Your task to perform on an android device: Open Amazon Image 0: 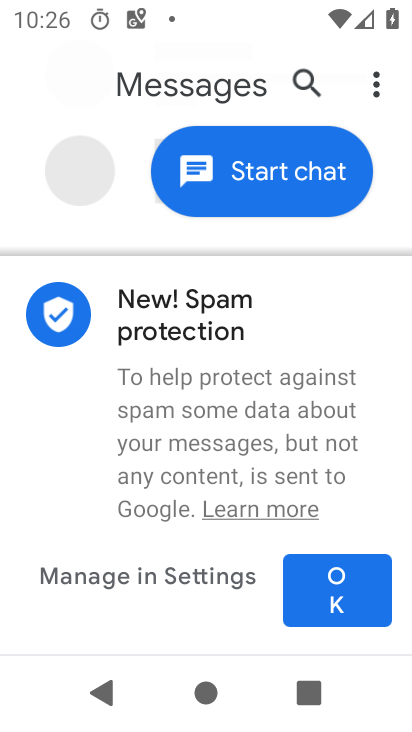
Step 0: press home button
Your task to perform on an android device: Open Amazon Image 1: 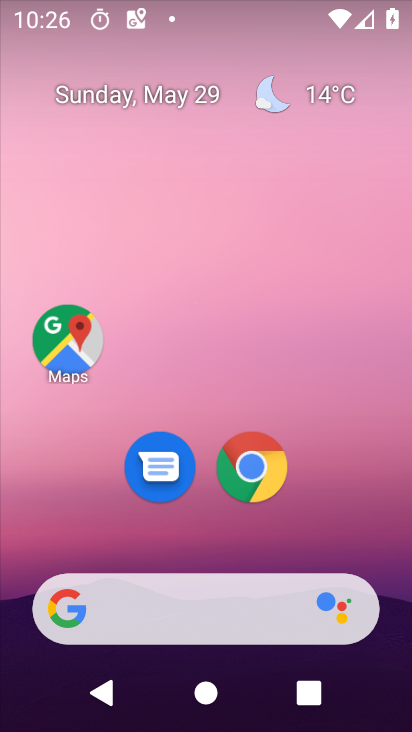
Step 1: click (275, 452)
Your task to perform on an android device: Open Amazon Image 2: 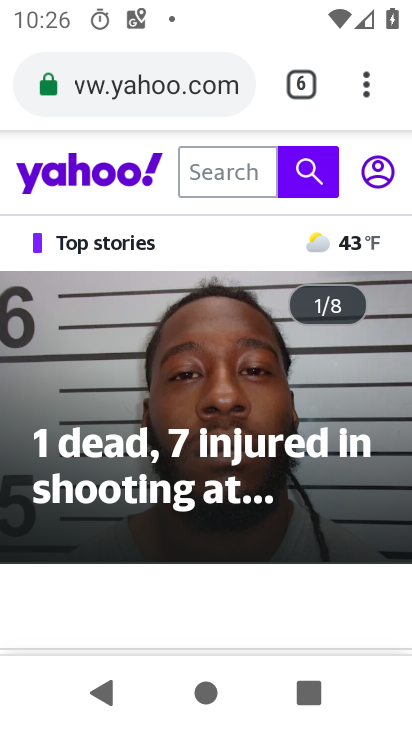
Step 2: click (302, 80)
Your task to perform on an android device: Open Amazon Image 3: 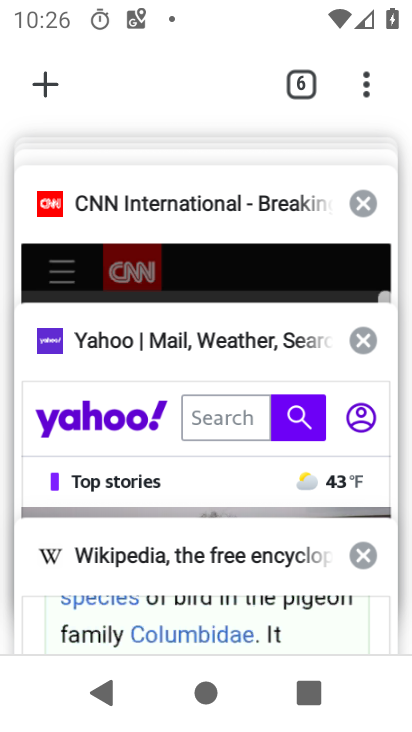
Step 3: drag from (135, 199) to (166, 412)
Your task to perform on an android device: Open Amazon Image 4: 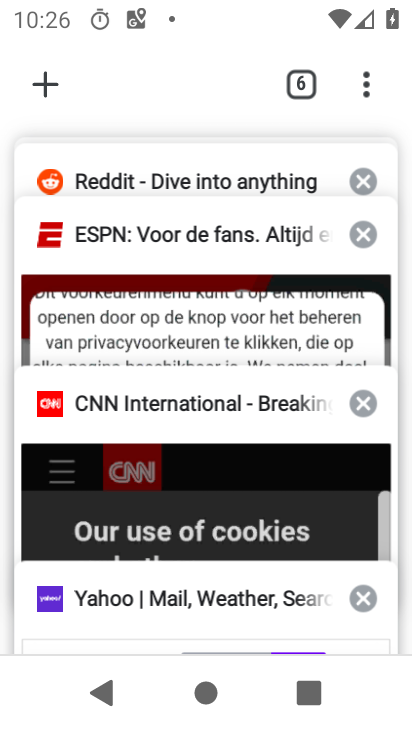
Step 4: drag from (169, 275) to (190, 417)
Your task to perform on an android device: Open Amazon Image 5: 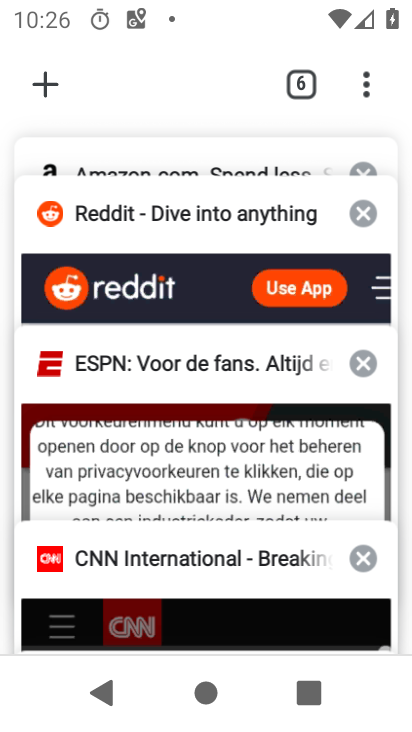
Step 5: drag from (156, 216) to (168, 382)
Your task to perform on an android device: Open Amazon Image 6: 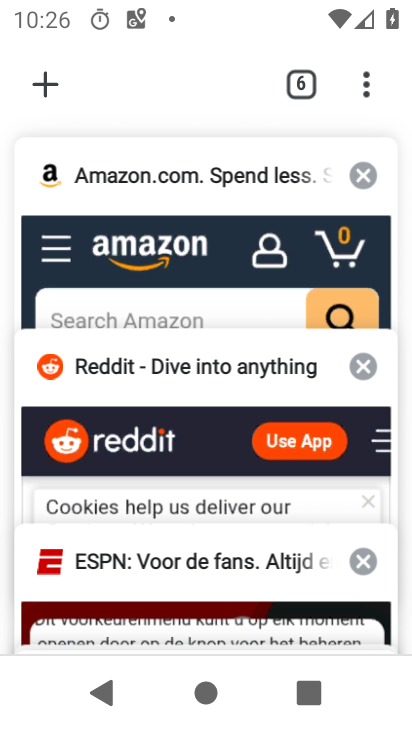
Step 6: click (142, 229)
Your task to perform on an android device: Open Amazon Image 7: 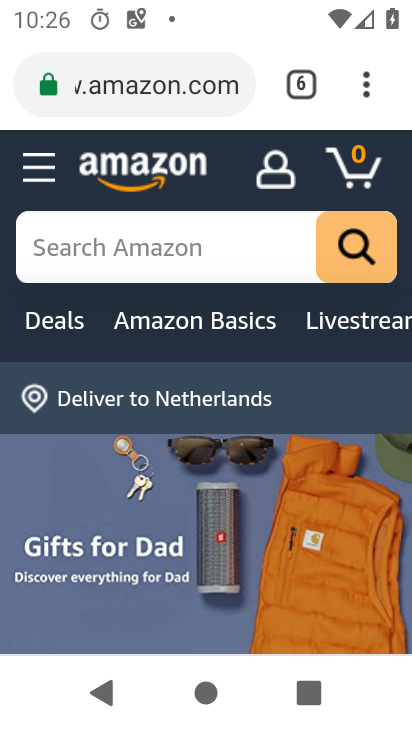
Step 7: task complete